Your task to perform on an android device: Open accessibility settings Image 0: 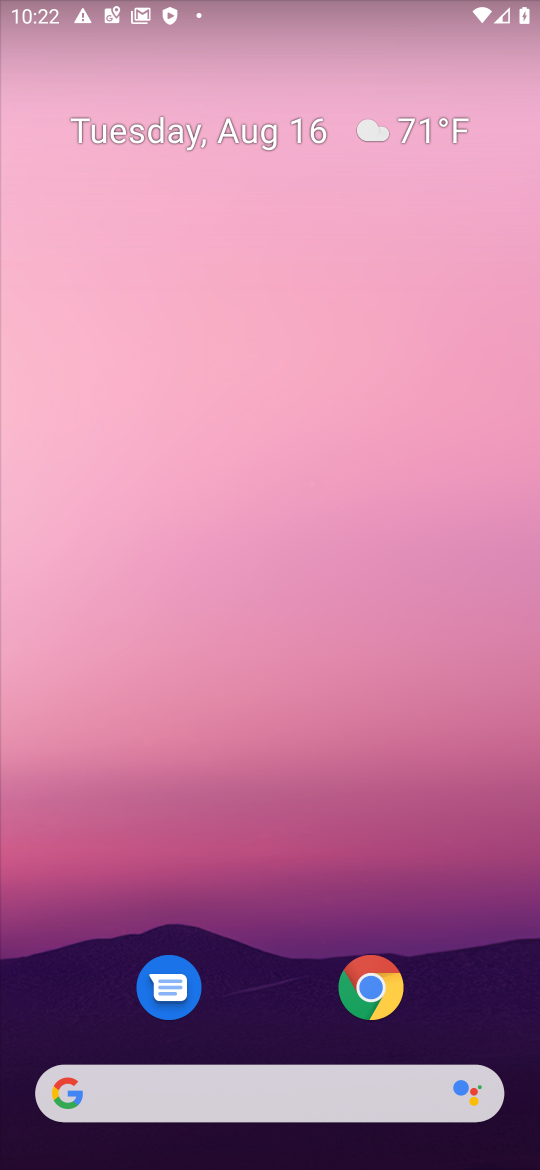
Step 0: drag from (17, 1126) to (147, 391)
Your task to perform on an android device: Open accessibility settings Image 1: 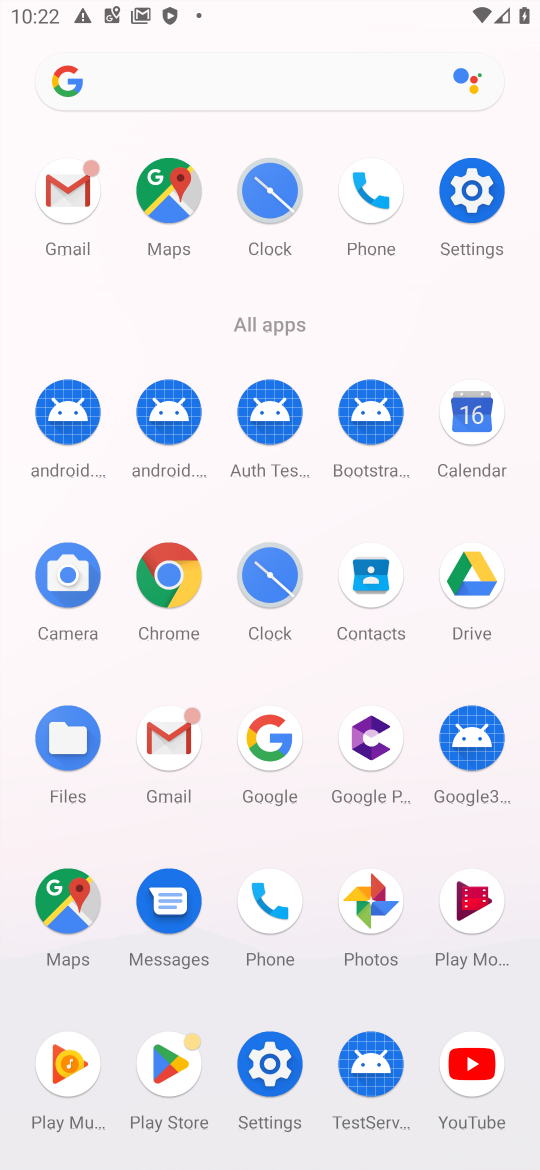
Step 1: click (259, 1062)
Your task to perform on an android device: Open accessibility settings Image 2: 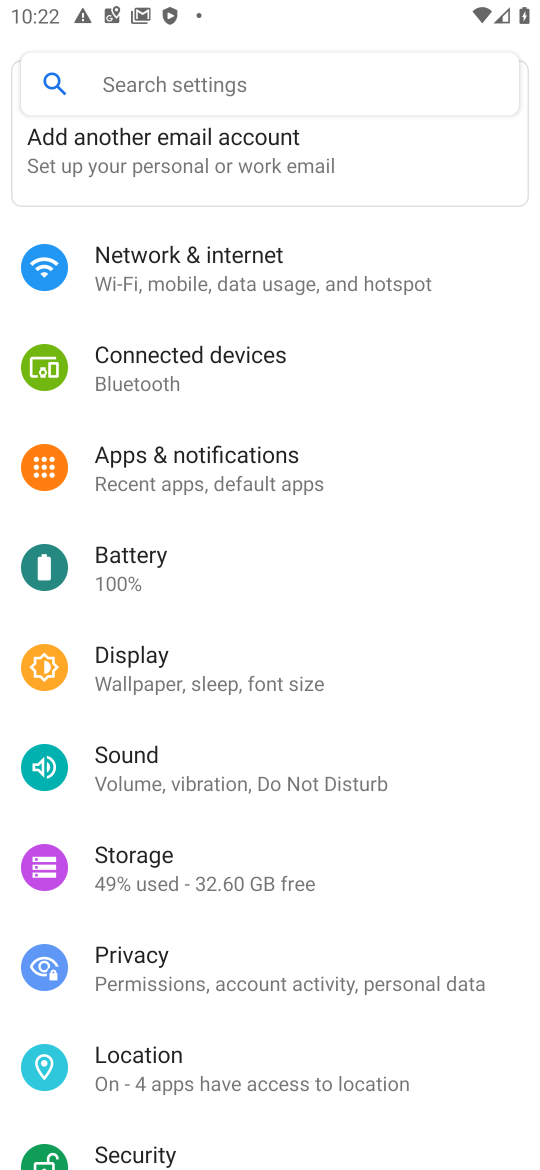
Step 2: drag from (250, 1045) to (314, 522)
Your task to perform on an android device: Open accessibility settings Image 3: 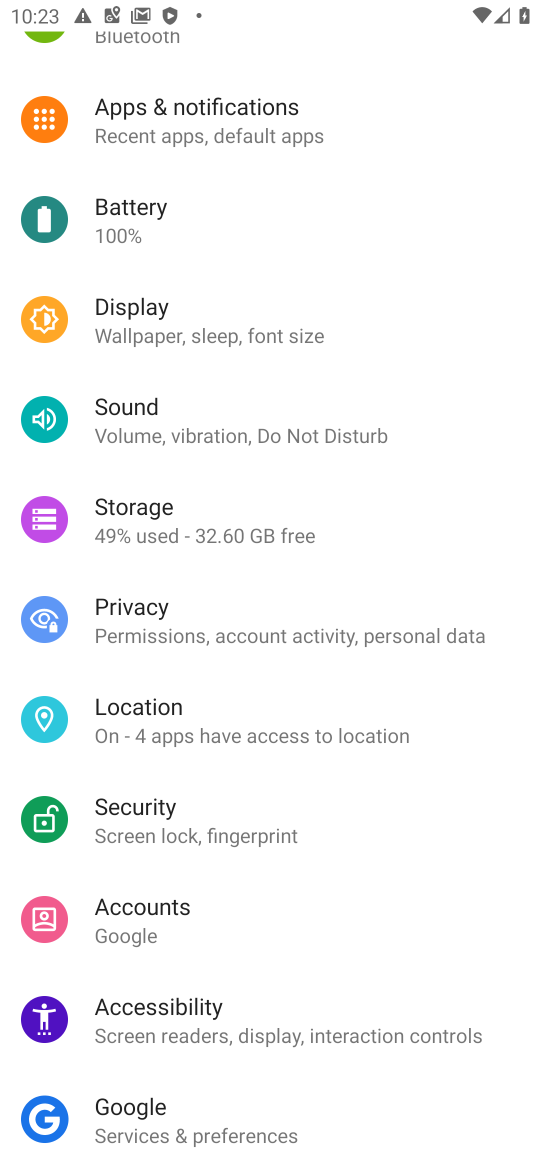
Step 3: click (196, 1010)
Your task to perform on an android device: Open accessibility settings Image 4: 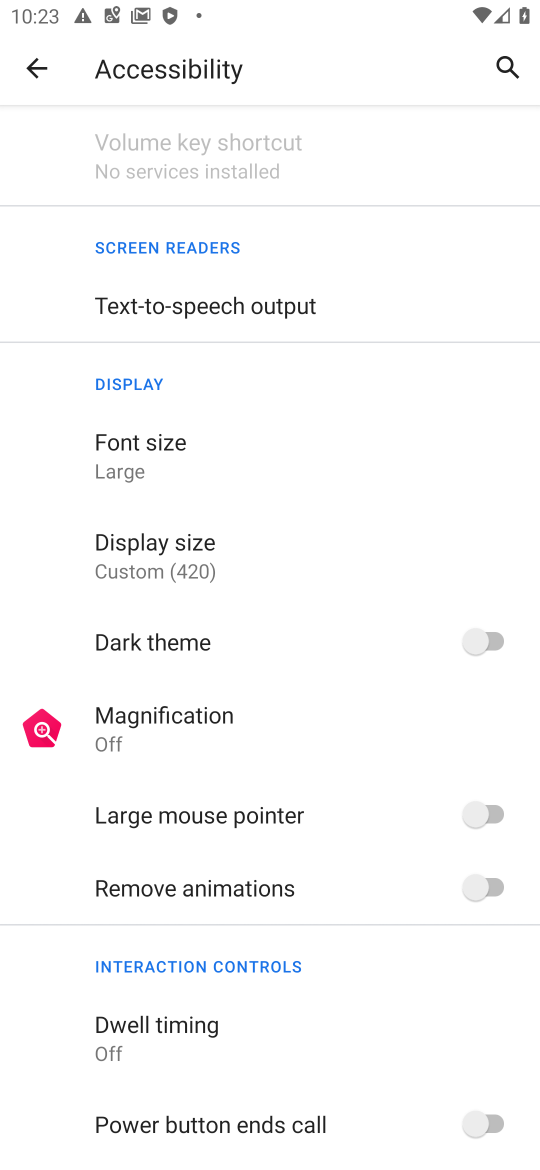
Step 4: task complete